Your task to perform on an android device: Go to wifi settings Image 0: 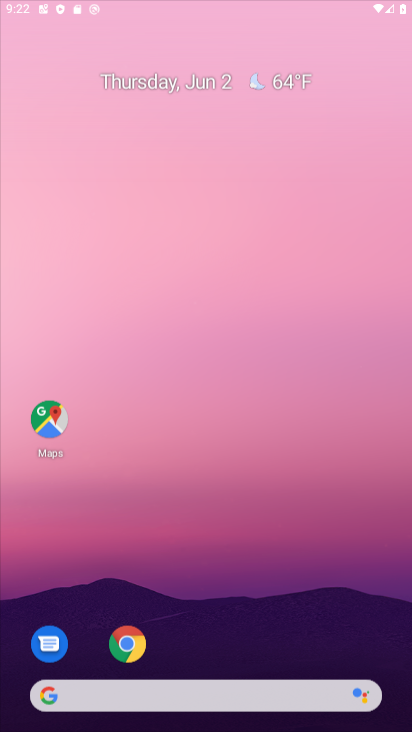
Step 0: press home button
Your task to perform on an android device: Go to wifi settings Image 1: 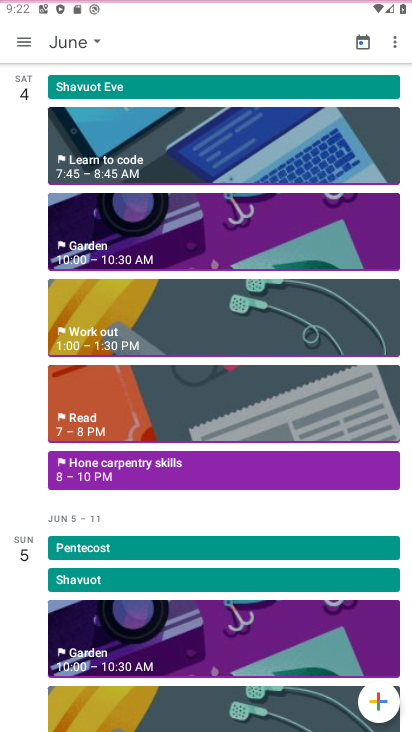
Step 1: drag from (237, 654) to (294, 53)
Your task to perform on an android device: Go to wifi settings Image 2: 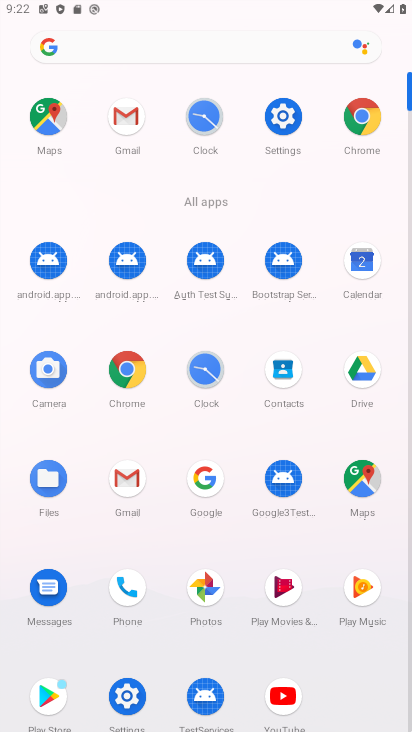
Step 2: click (283, 101)
Your task to perform on an android device: Go to wifi settings Image 3: 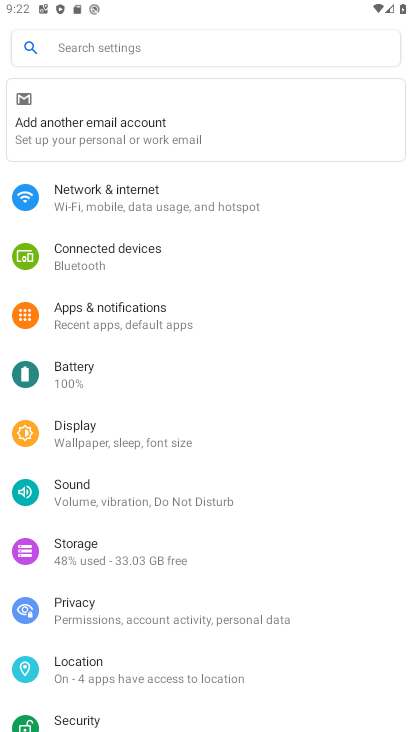
Step 3: press home button
Your task to perform on an android device: Go to wifi settings Image 4: 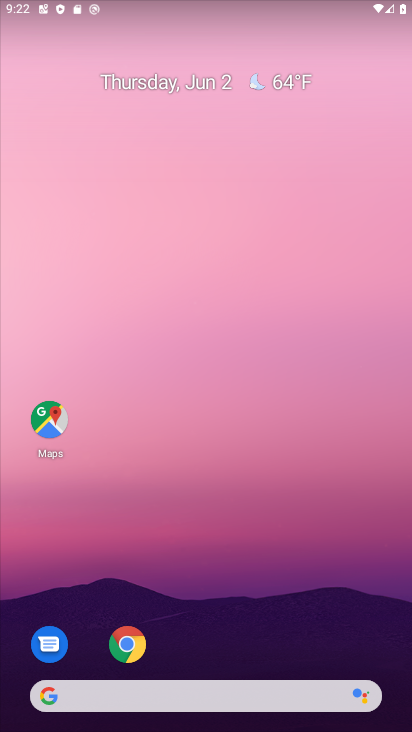
Step 4: drag from (330, 24) to (260, 669)
Your task to perform on an android device: Go to wifi settings Image 5: 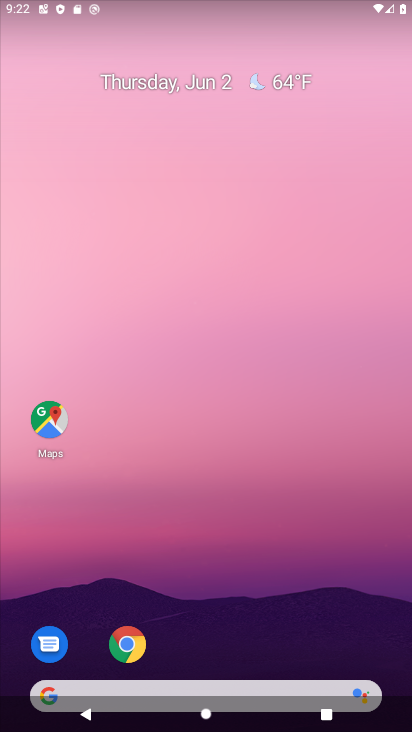
Step 5: drag from (332, 4) to (324, 605)
Your task to perform on an android device: Go to wifi settings Image 6: 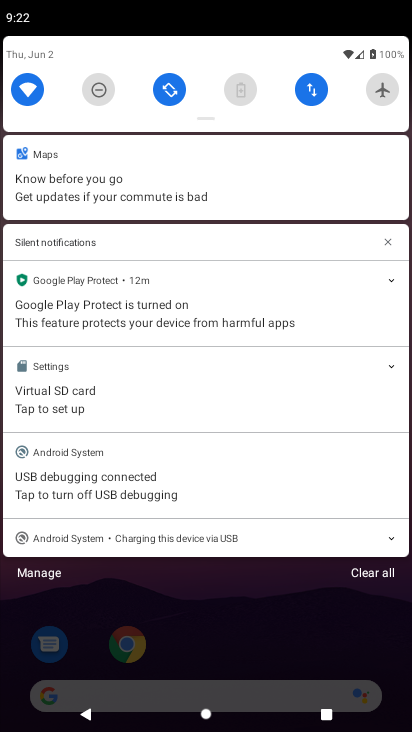
Step 6: click (26, 82)
Your task to perform on an android device: Go to wifi settings Image 7: 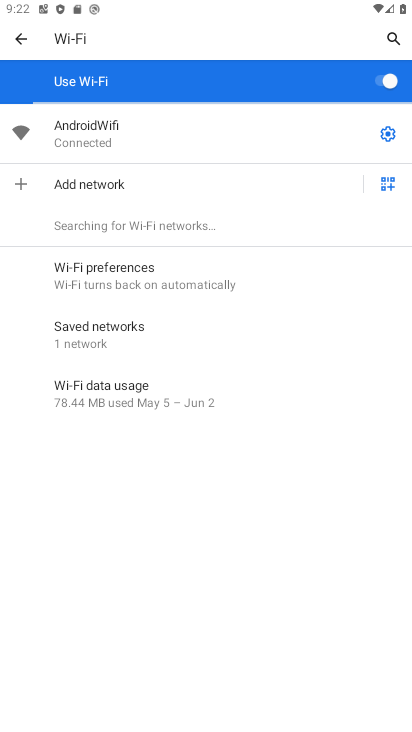
Step 7: task complete